Your task to perform on an android device: toggle sleep mode Image 0: 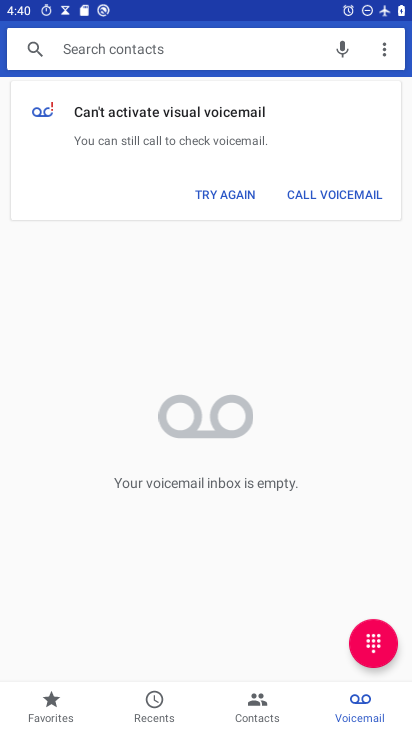
Step 0: press home button
Your task to perform on an android device: toggle sleep mode Image 1: 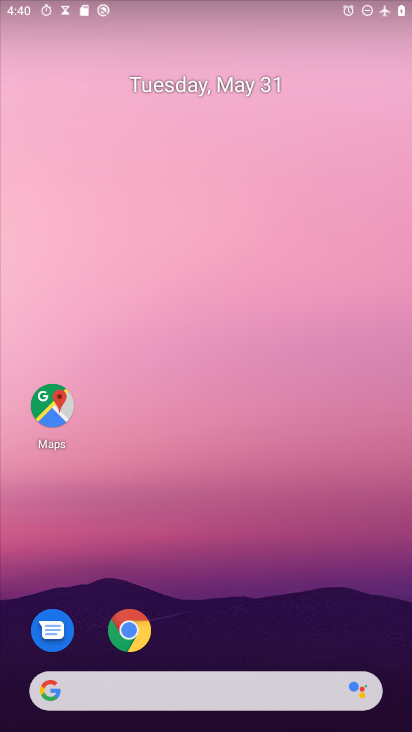
Step 1: drag from (362, 697) to (354, 143)
Your task to perform on an android device: toggle sleep mode Image 2: 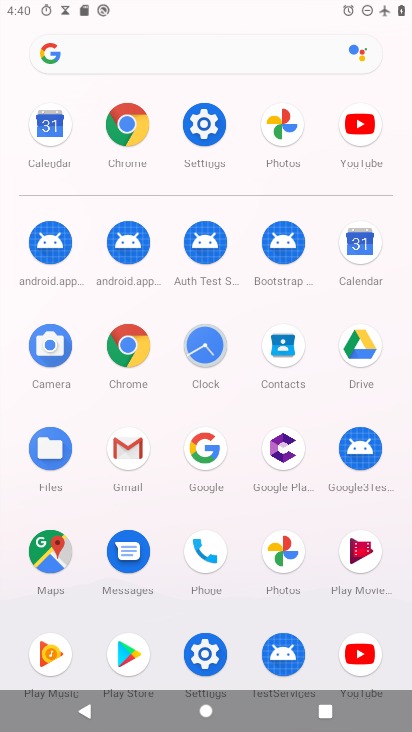
Step 2: click (198, 116)
Your task to perform on an android device: toggle sleep mode Image 3: 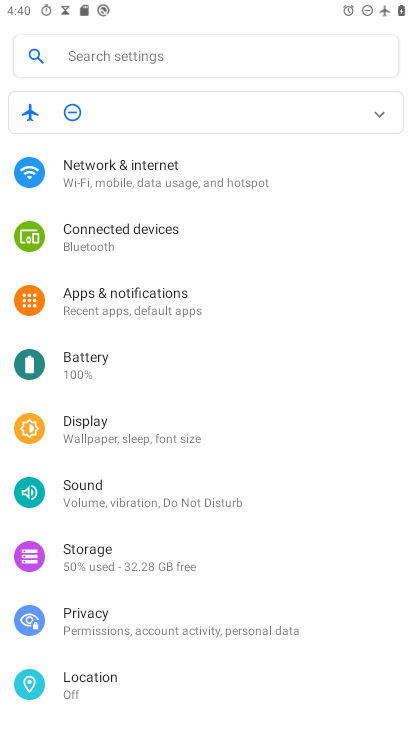
Step 3: click (133, 435)
Your task to perform on an android device: toggle sleep mode Image 4: 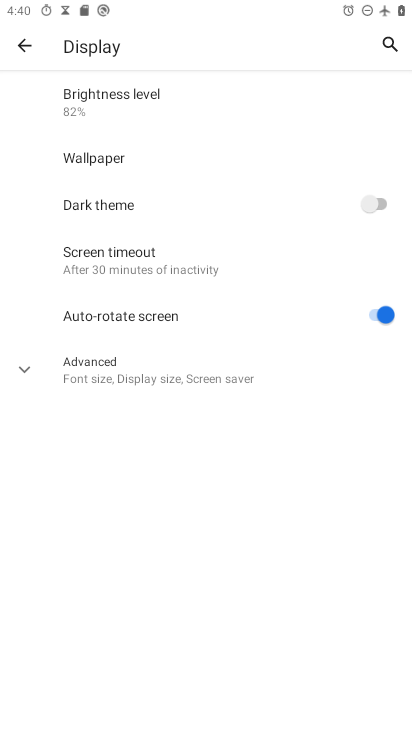
Step 4: task complete